Your task to perform on an android device: Go to Wikipedia Image 0: 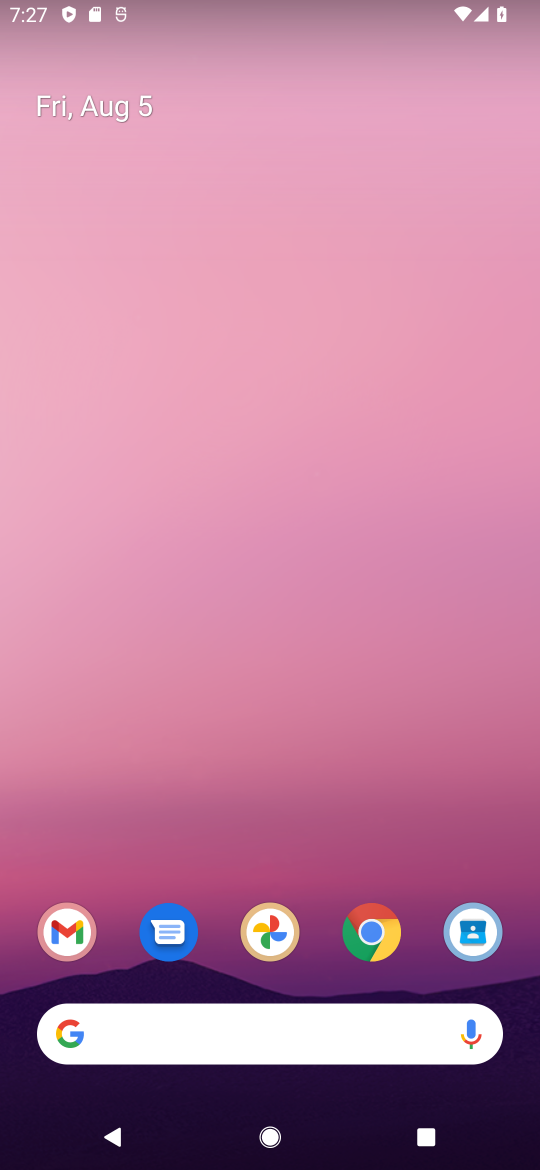
Step 0: drag from (267, 845) to (432, 78)
Your task to perform on an android device: Go to Wikipedia Image 1: 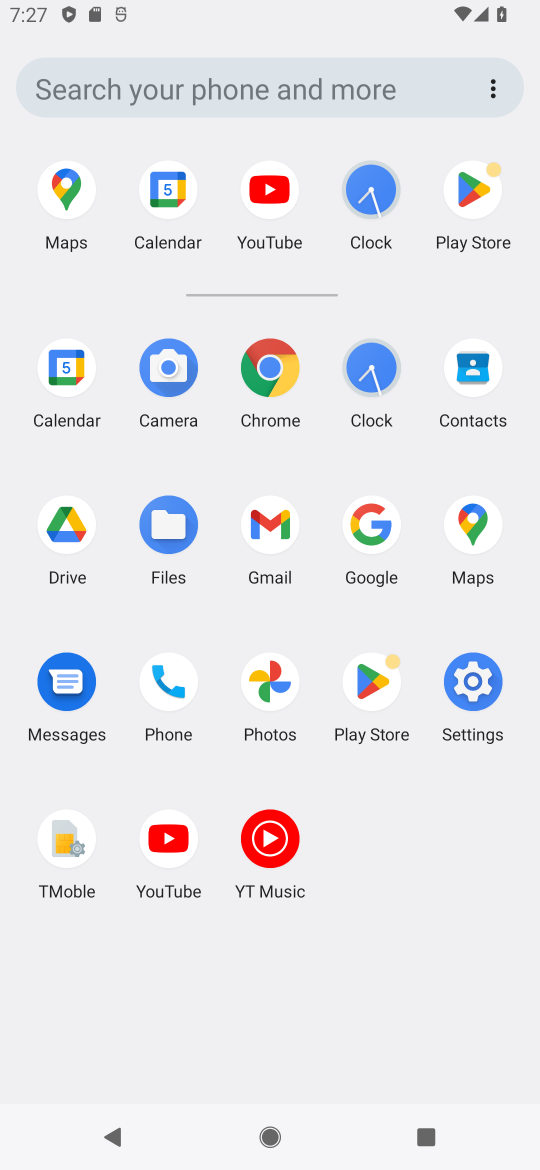
Step 1: click (270, 370)
Your task to perform on an android device: Go to Wikipedia Image 2: 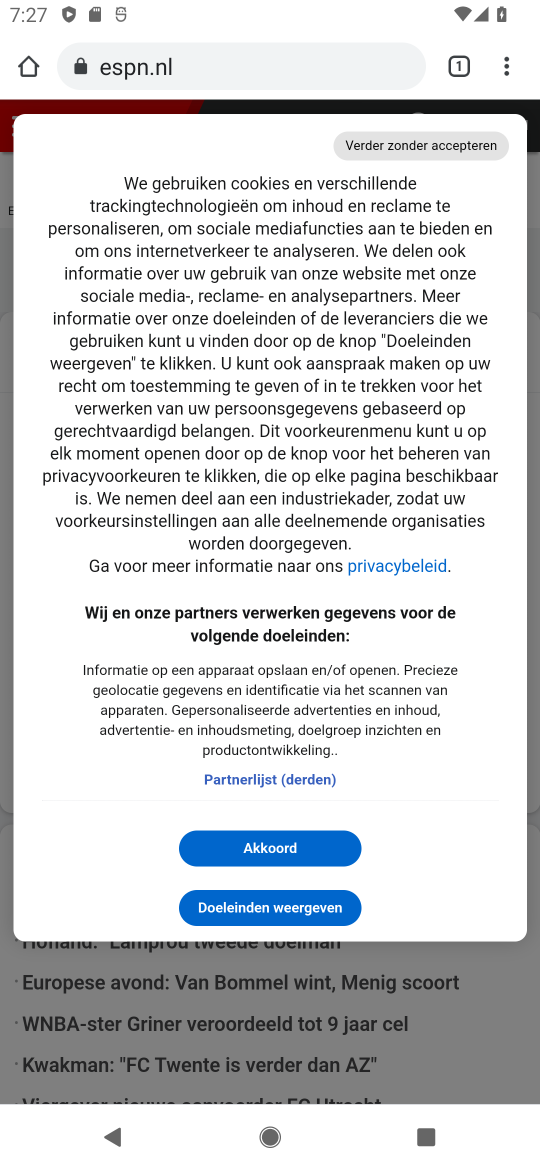
Step 2: click (219, 75)
Your task to perform on an android device: Go to Wikipedia Image 3: 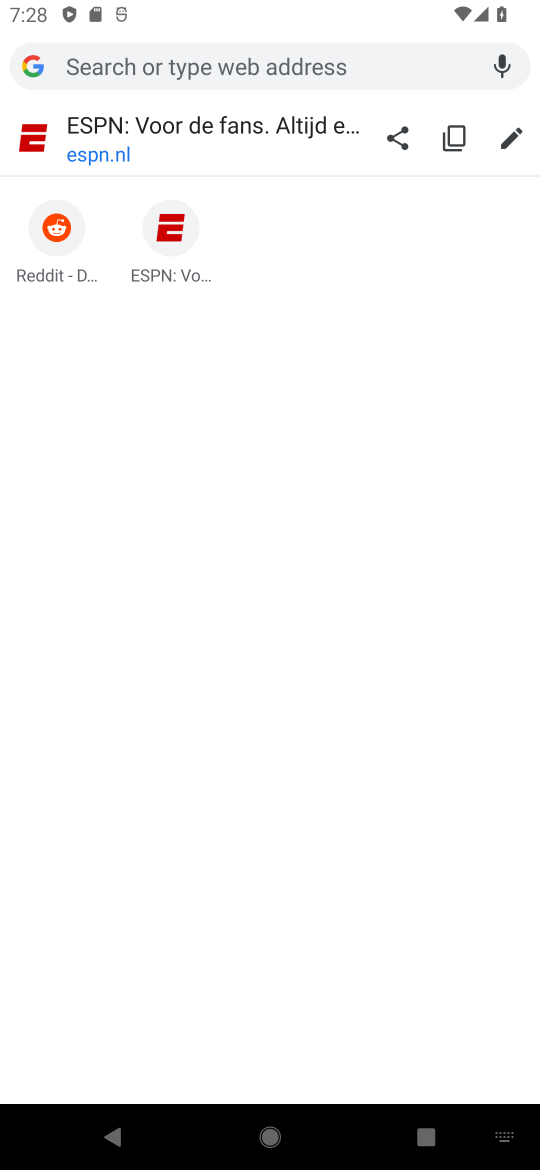
Step 3: type "wikipedia"
Your task to perform on an android device: Go to Wikipedia Image 4: 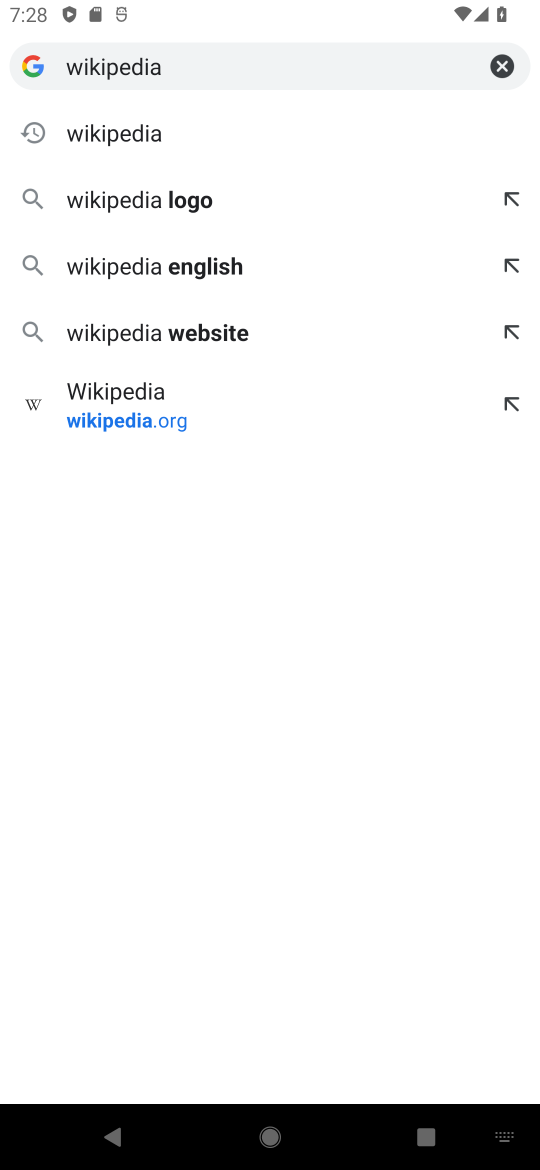
Step 4: click (152, 407)
Your task to perform on an android device: Go to Wikipedia Image 5: 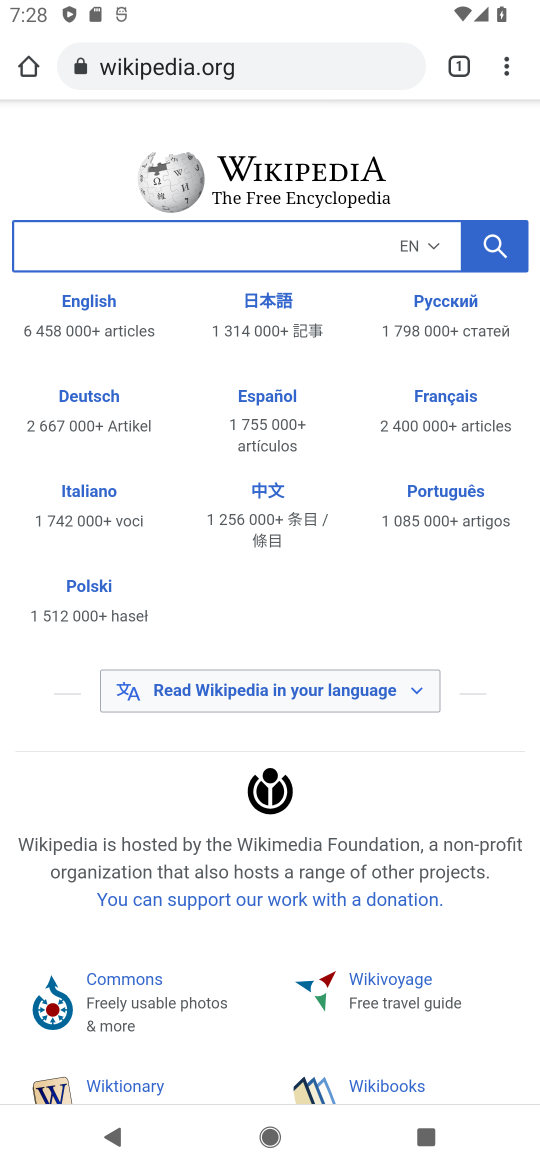
Step 5: task complete